Your task to perform on an android device: turn notification dots on Image 0: 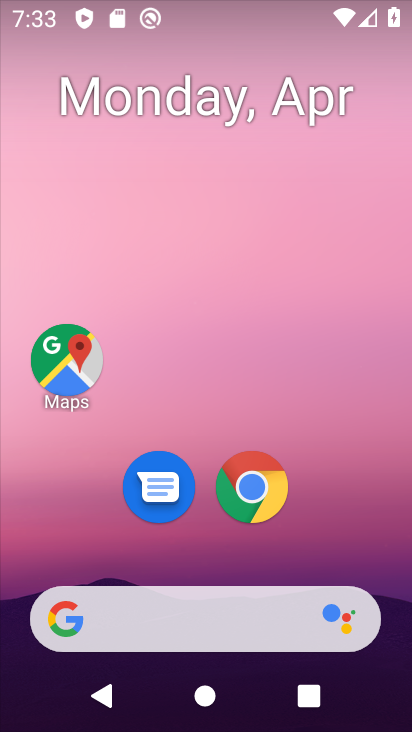
Step 0: drag from (321, 547) to (351, 35)
Your task to perform on an android device: turn notification dots on Image 1: 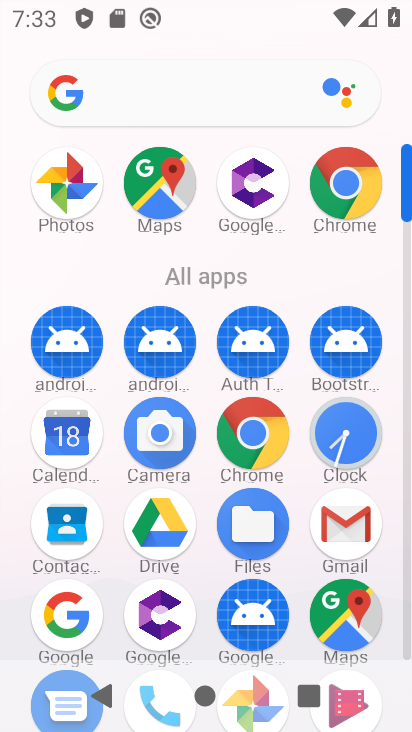
Step 1: drag from (195, 438) to (209, 136)
Your task to perform on an android device: turn notification dots on Image 2: 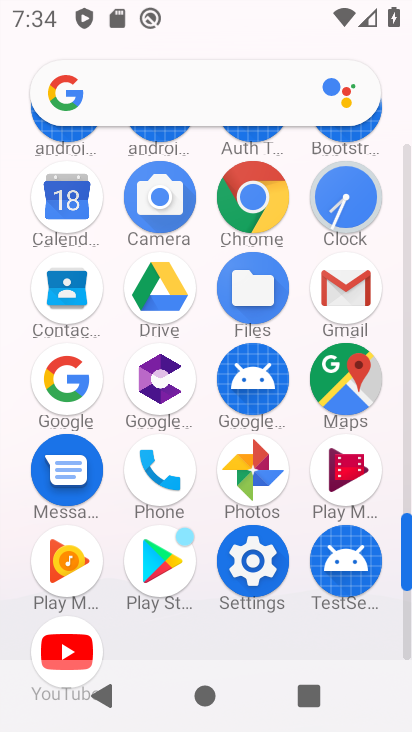
Step 2: click (257, 566)
Your task to perform on an android device: turn notification dots on Image 3: 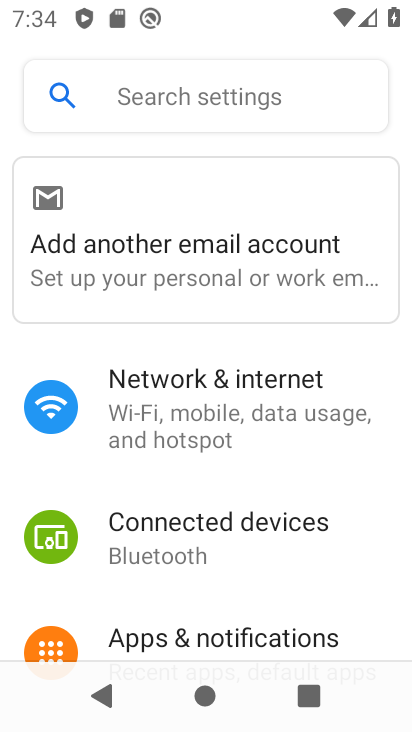
Step 3: drag from (362, 596) to (360, 324)
Your task to perform on an android device: turn notification dots on Image 4: 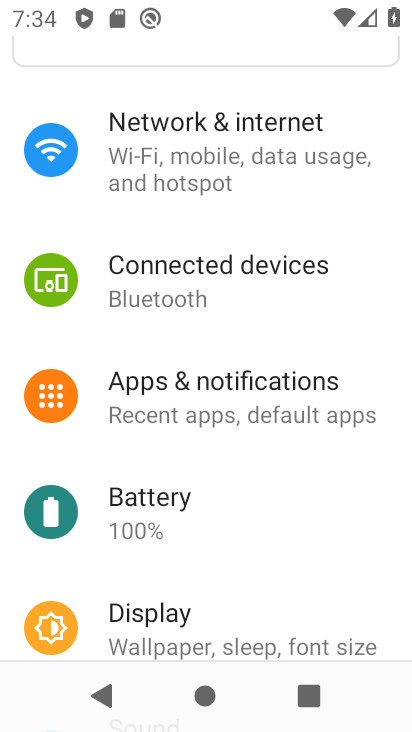
Step 4: drag from (319, 542) to (343, 301)
Your task to perform on an android device: turn notification dots on Image 5: 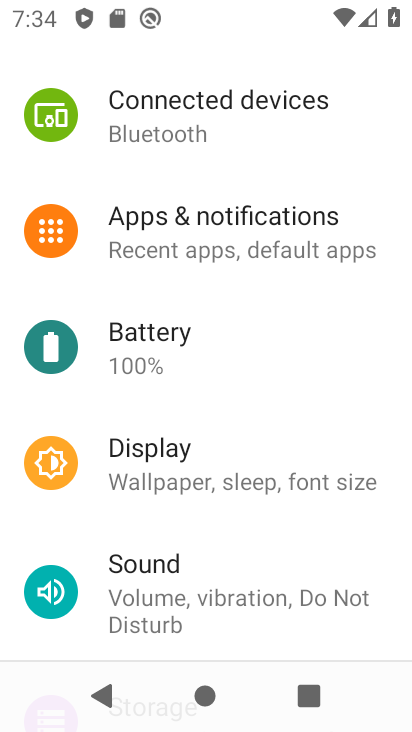
Step 5: drag from (330, 526) to (337, 324)
Your task to perform on an android device: turn notification dots on Image 6: 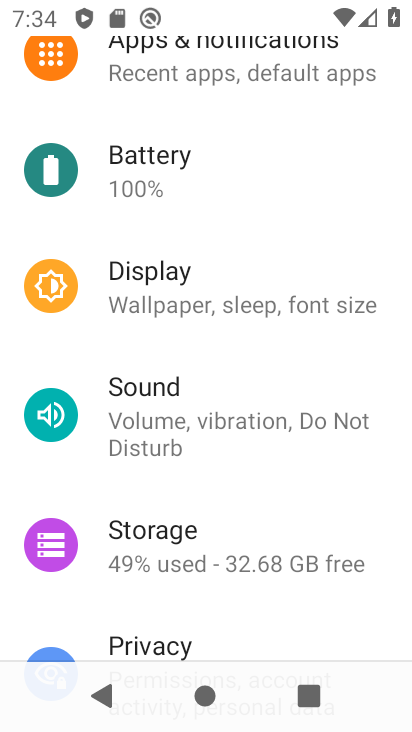
Step 6: drag from (341, 519) to (343, 357)
Your task to perform on an android device: turn notification dots on Image 7: 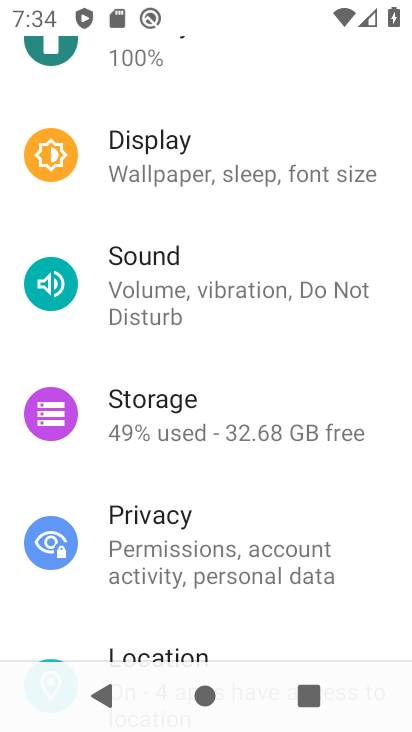
Step 7: drag from (359, 544) to (361, 343)
Your task to perform on an android device: turn notification dots on Image 8: 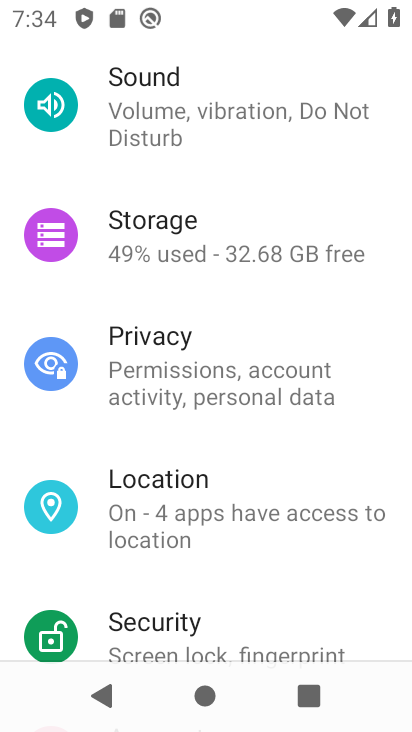
Step 8: drag from (346, 581) to (360, 346)
Your task to perform on an android device: turn notification dots on Image 9: 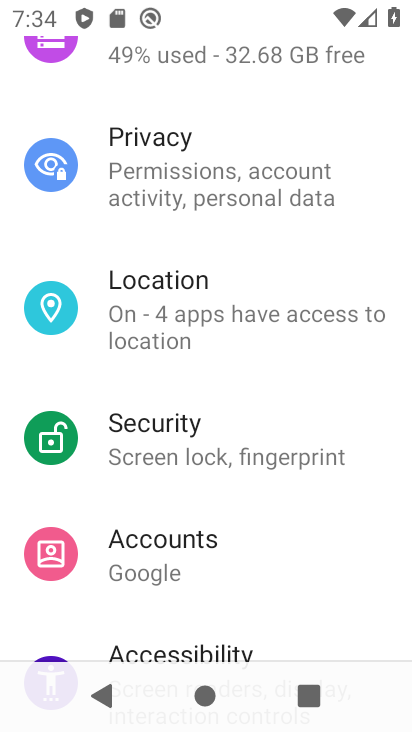
Step 9: drag from (343, 550) to (373, 295)
Your task to perform on an android device: turn notification dots on Image 10: 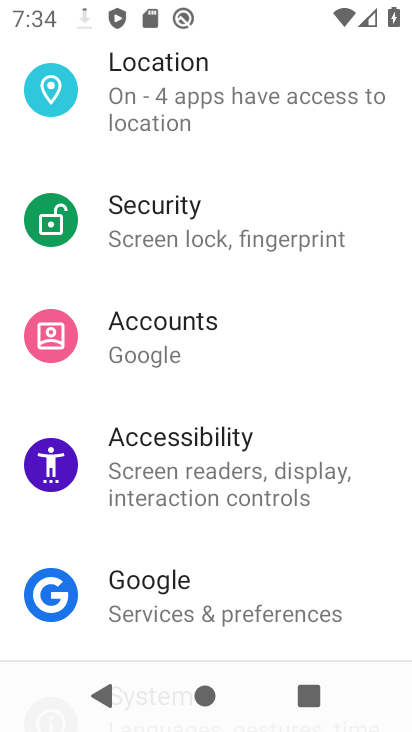
Step 10: drag from (374, 253) to (368, 548)
Your task to perform on an android device: turn notification dots on Image 11: 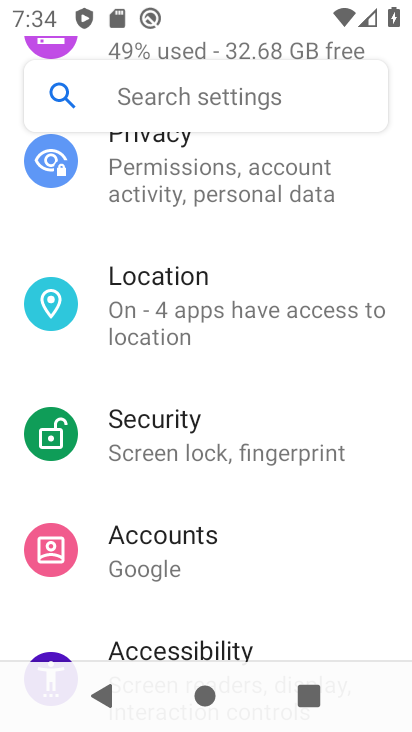
Step 11: drag from (372, 230) to (369, 553)
Your task to perform on an android device: turn notification dots on Image 12: 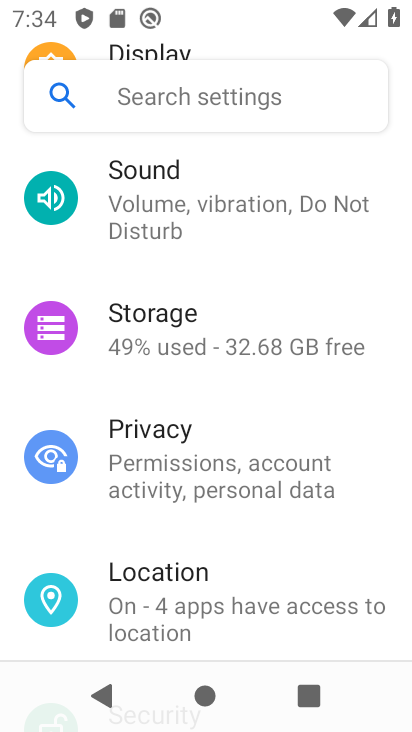
Step 12: drag from (380, 225) to (377, 529)
Your task to perform on an android device: turn notification dots on Image 13: 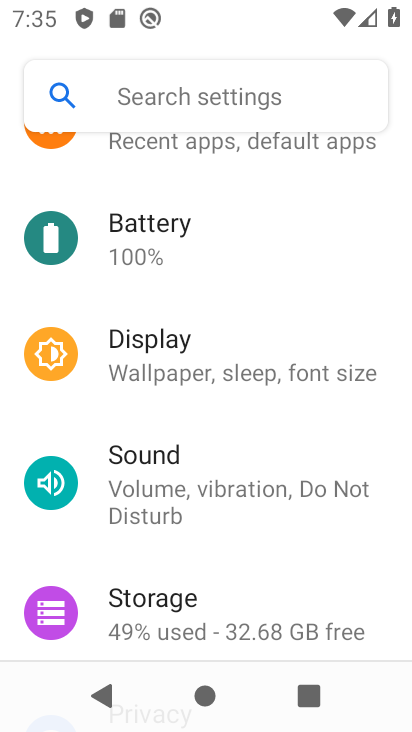
Step 13: drag from (385, 244) to (391, 484)
Your task to perform on an android device: turn notification dots on Image 14: 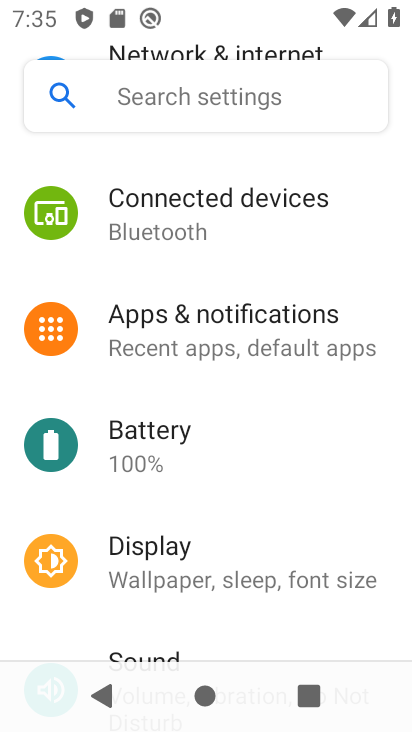
Step 14: click (270, 334)
Your task to perform on an android device: turn notification dots on Image 15: 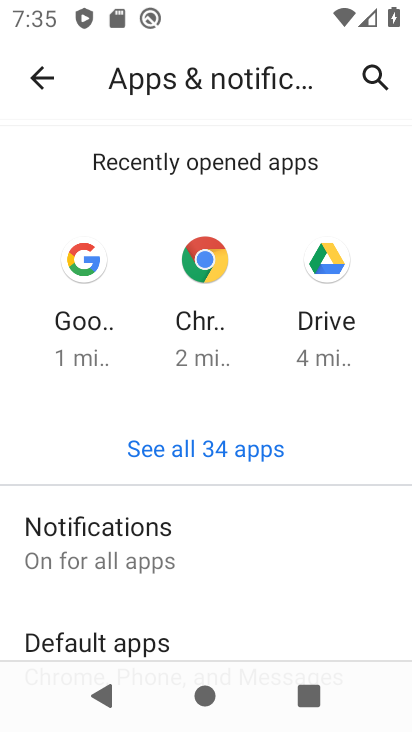
Step 15: click (126, 551)
Your task to perform on an android device: turn notification dots on Image 16: 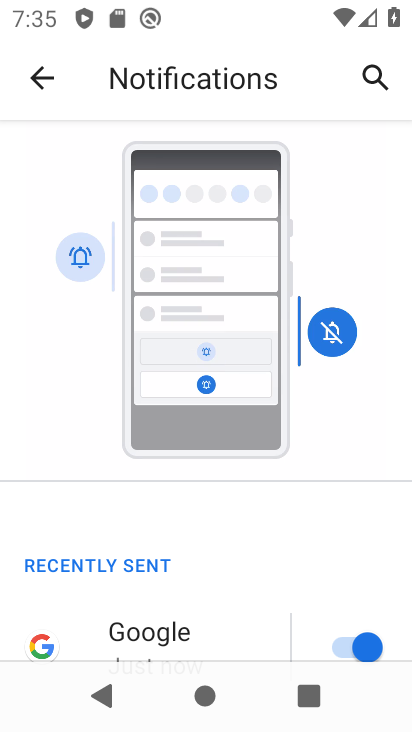
Step 16: drag from (280, 457) to (296, 302)
Your task to perform on an android device: turn notification dots on Image 17: 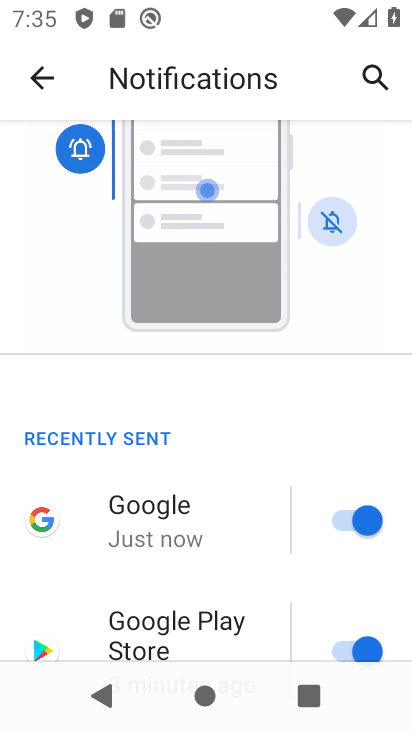
Step 17: drag from (251, 492) to (255, 339)
Your task to perform on an android device: turn notification dots on Image 18: 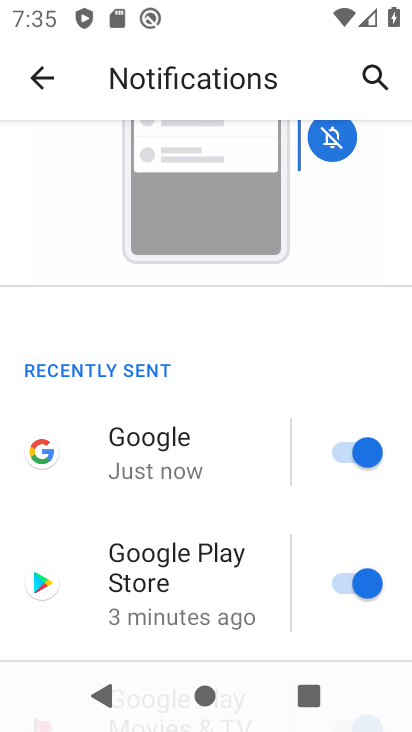
Step 18: drag from (259, 442) to (265, 301)
Your task to perform on an android device: turn notification dots on Image 19: 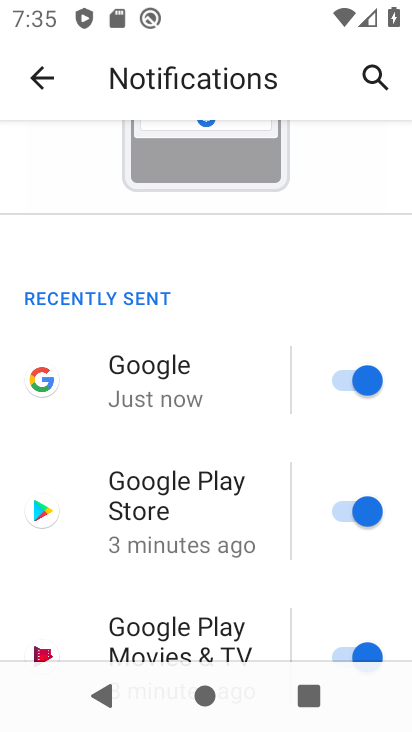
Step 19: drag from (268, 557) to (272, 307)
Your task to perform on an android device: turn notification dots on Image 20: 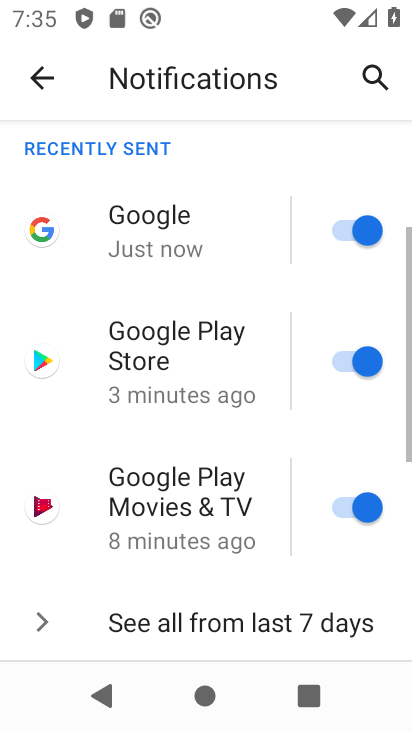
Step 20: drag from (267, 568) to (260, 308)
Your task to perform on an android device: turn notification dots on Image 21: 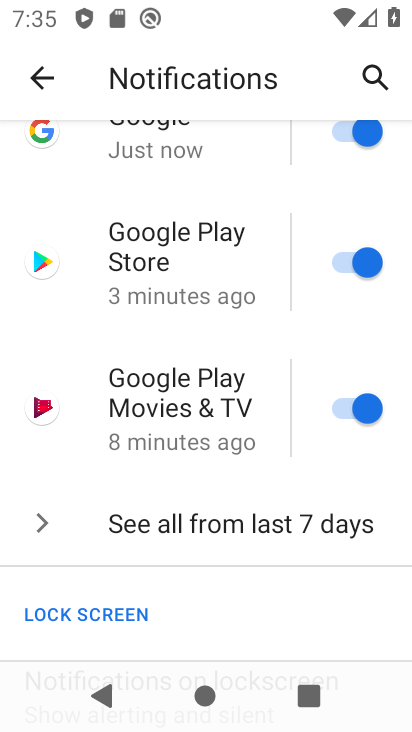
Step 21: drag from (259, 593) to (281, 331)
Your task to perform on an android device: turn notification dots on Image 22: 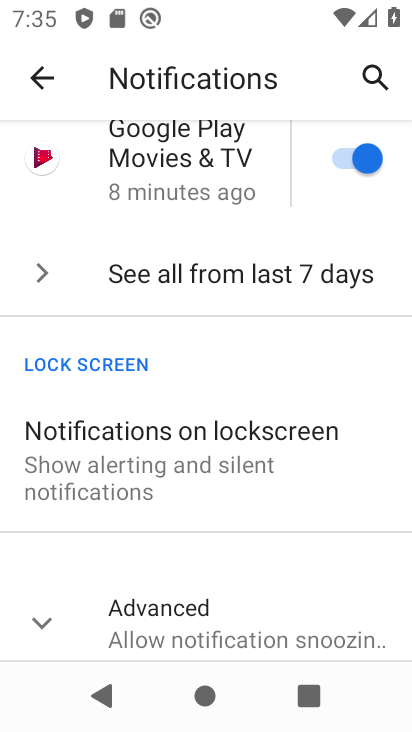
Step 22: click (193, 616)
Your task to perform on an android device: turn notification dots on Image 23: 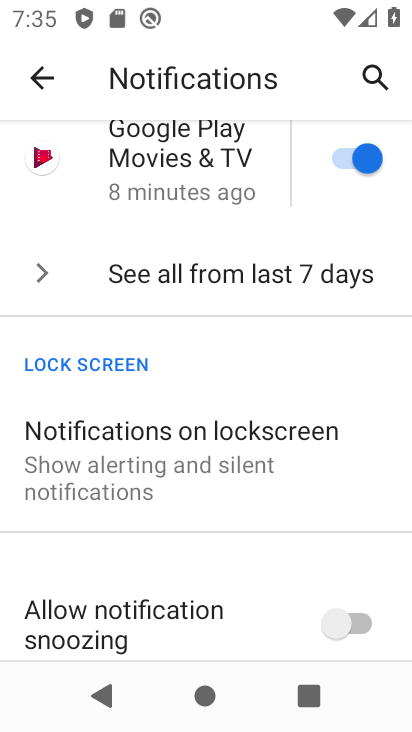
Step 23: task complete